Your task to perform on an android device: Open the map Image 0: 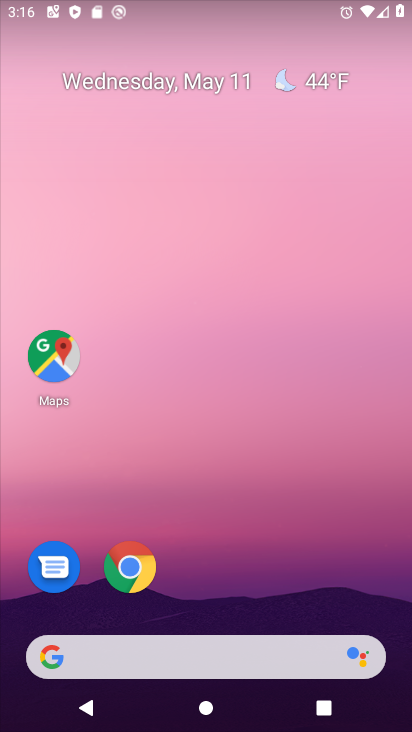
Step 0: drag from (233, 534) to (223, 24)
Your task to perform on an android device: Open the map Image 1: 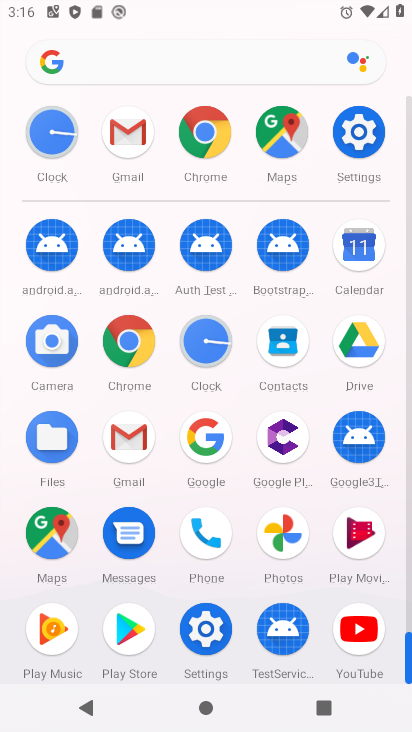
Step 1: drag from (5, 537) to (2, 174)
Your task to perform on an android device: Open the map Image 2: 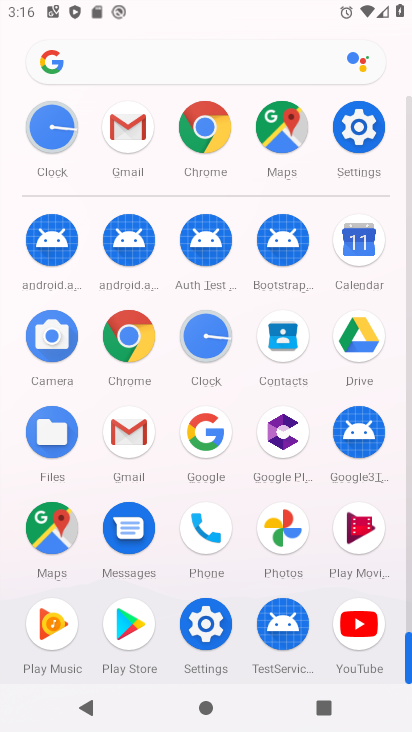
Step 2: click (282, 124)
Your task to perform on an android device: Open the map Image 3: 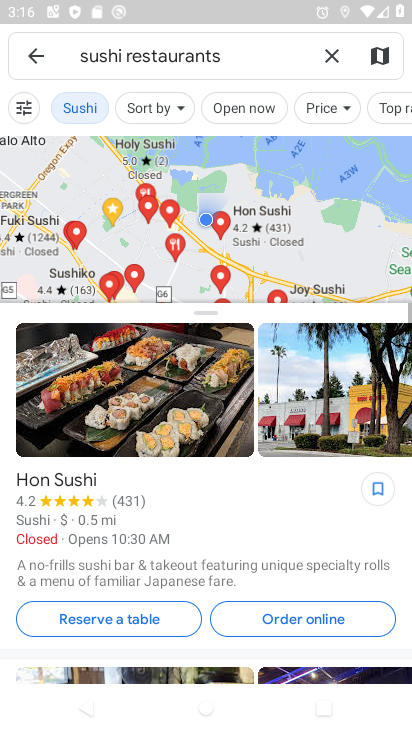
Step 3: click (32, 53)
Your task to perform on an android device: Open the map Image 4: 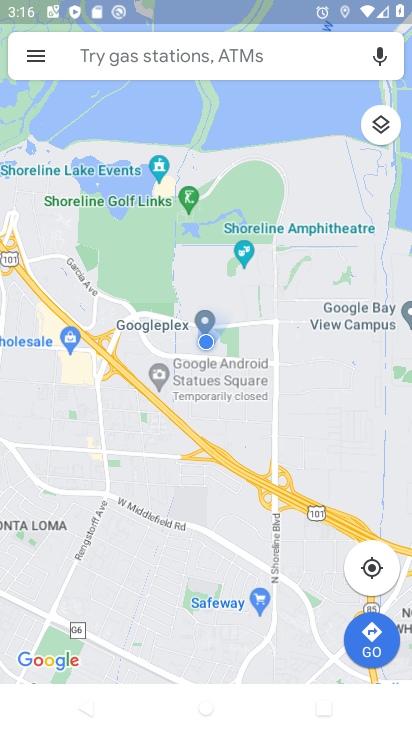
Step 4: task complete